Your task to perform on an android device: Open CNN.com Image 0: 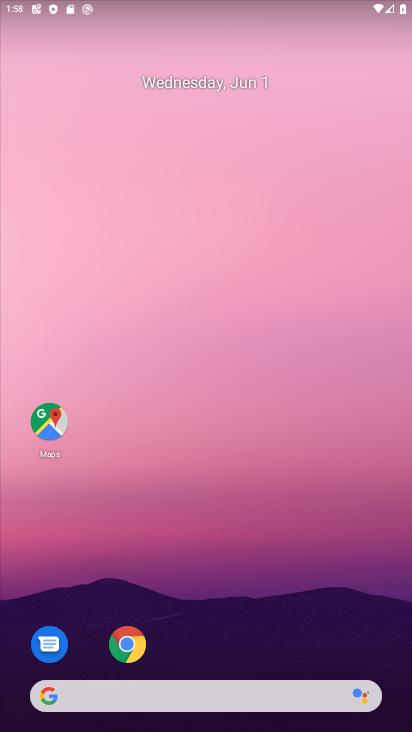
Step 0: click (131, 644)
Your task to perform on an android device: Open CNN.com Image 1: 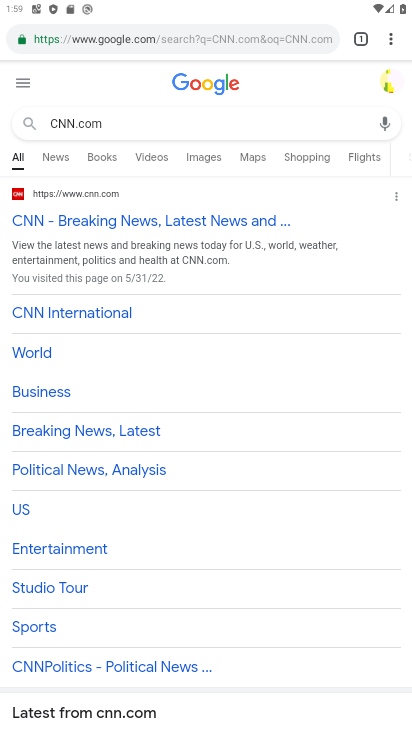
Step 1: task complete